Your task to perform on an android device: change the clock display to digital Image 0: 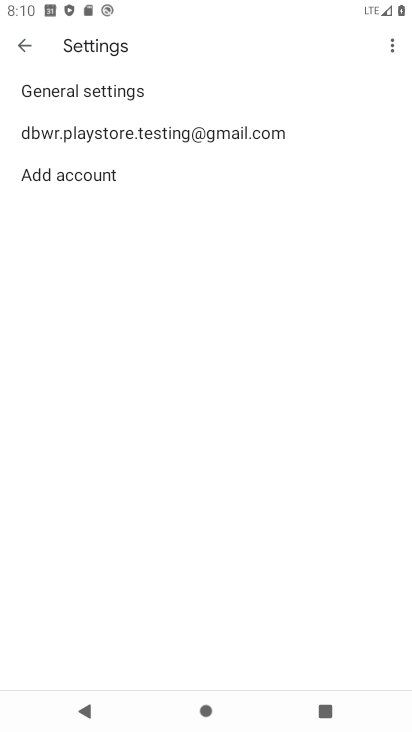
Step 0: press home button
Your task to perform on an android device: change the clock display to digital Image 1: 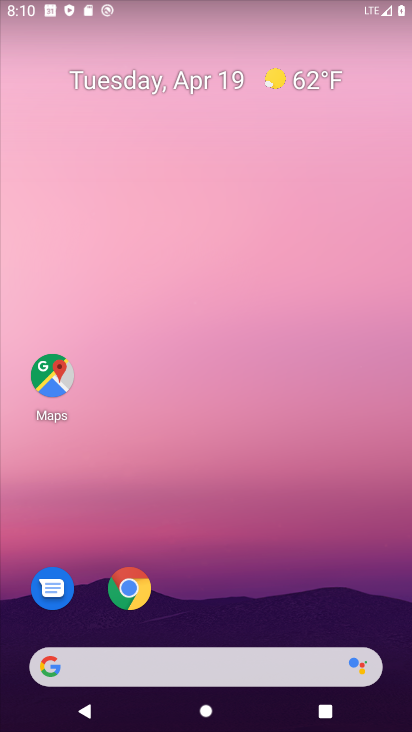
Step 1: drag from (221, 574) to (193, 187)
Your task to perform on an android device: change the clock display to digital Image 2: 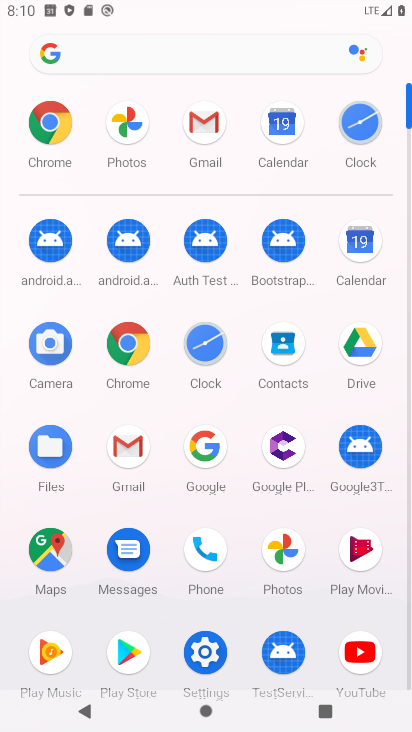
Step 2: click (197, 342)
Your task to perform on an android device: change the clock display to digital Image 3: 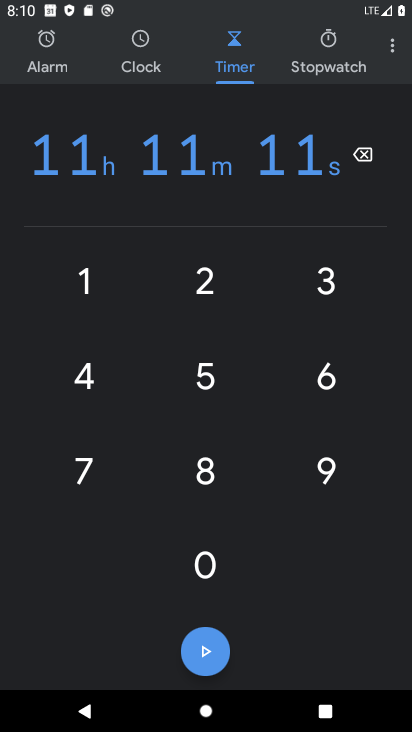
Step 3: click (396, 42)
Your task to perform on an android device: change the clock display to digital Image 4: 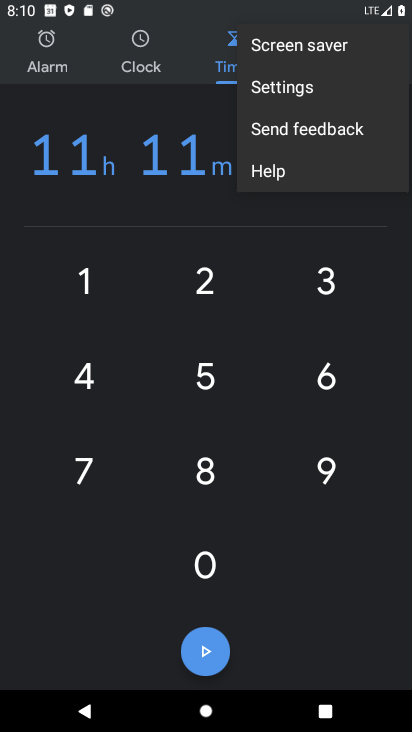
Step 4: click (293, 86)
Your task to perform on an android device: change the clock display to digital Image 5: 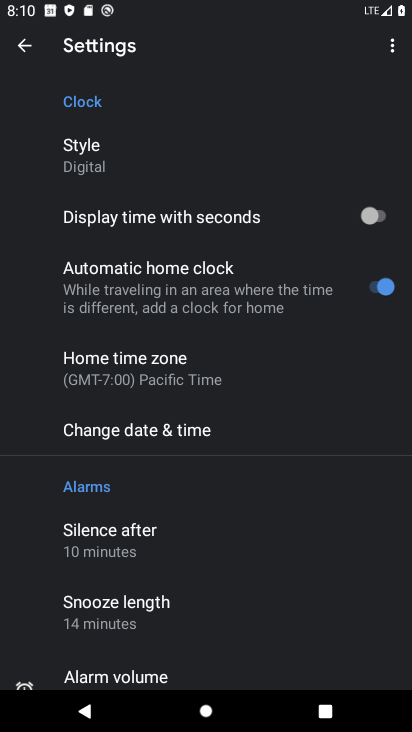
Step 5: click (86, 154)
Your task to perform on an android device: change the clock display to digital Image 6: 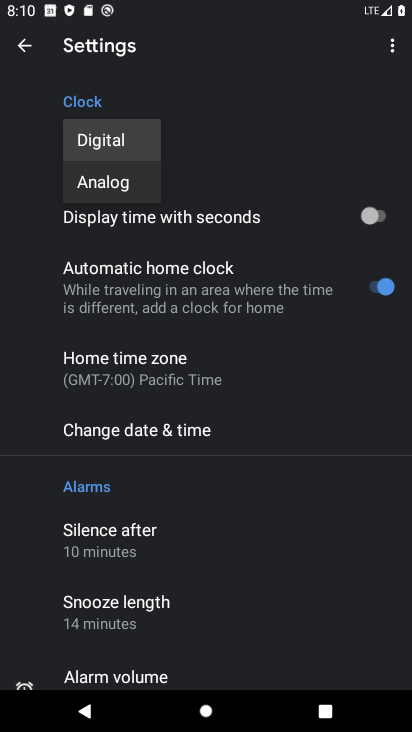
Step 6: click (118, 142)
Your task to perform on an android device: change the clock display to digital Image 7: 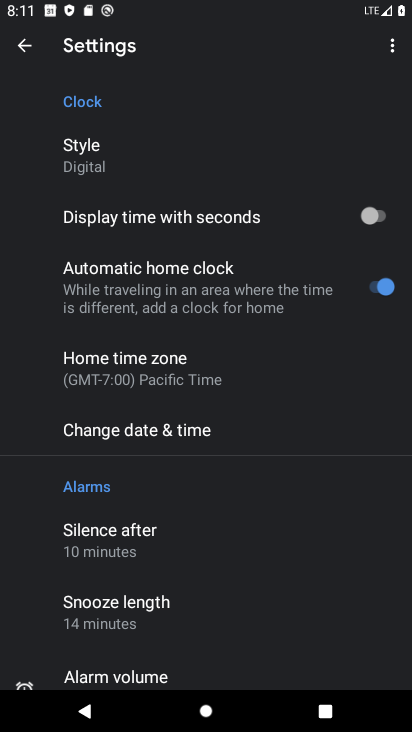
Step 7: task complete